Your task to perform on an android device: Go to Reddit.com Image 0: 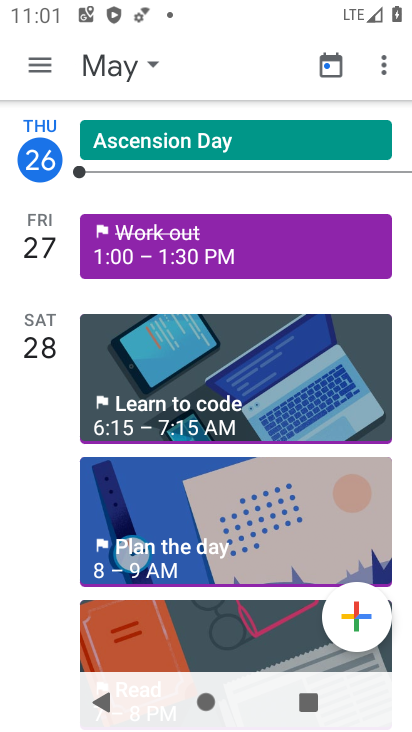
Step 0: press home button
Your task to perform on an android device: Go to Reddit.com Image 1: 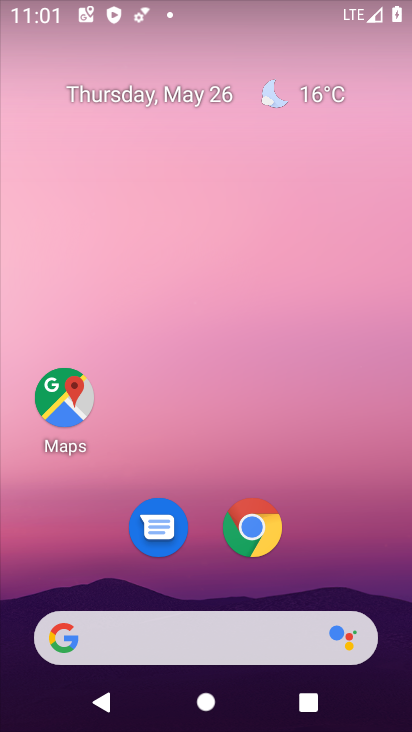
Step 1: click (252, 523)
Your task to perform on an android device: Go to Reddit.com Image 2: 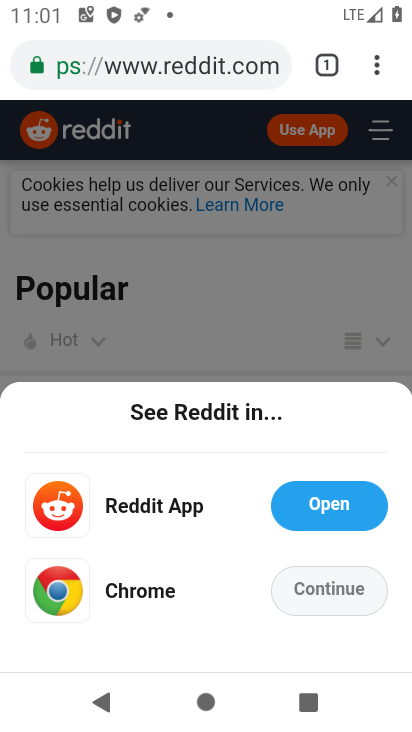
Step 2: task complete